Your task to perform on an android device: toggle priority inbox in the gmail app Image 0: 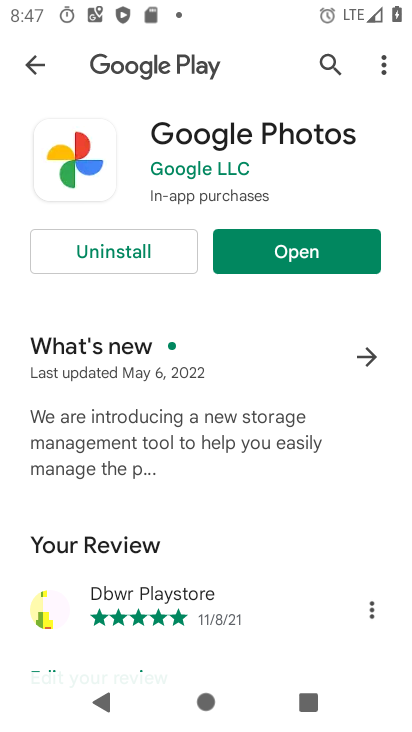
Step 0: press home button
Your task to perform on an android device: toggle priority inbox in the gmail app Image 1: 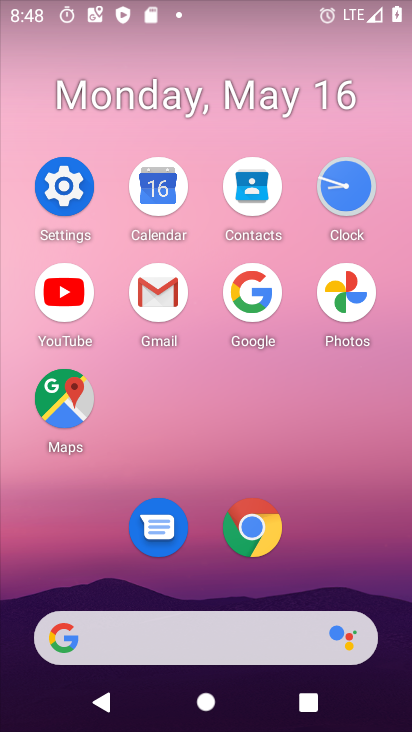
Step 1: click (161, 306)
Your task to perform on an android device: toggle priority inbox in the gmail app Image 2: 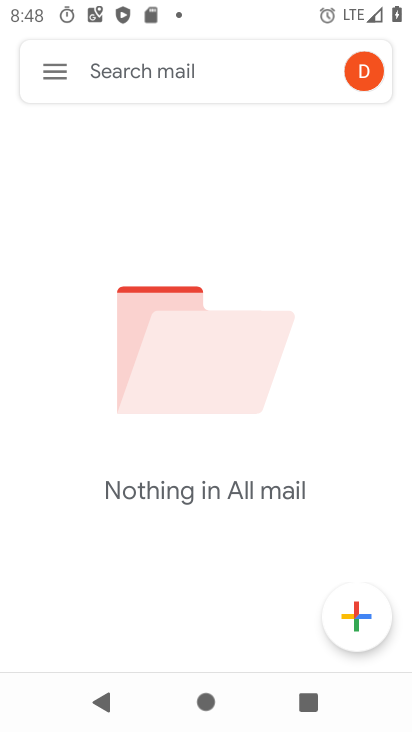
Step 2: click (48, 88)
Your task to perform on an android device: toggle priority inbox in the gmail app Image 3: 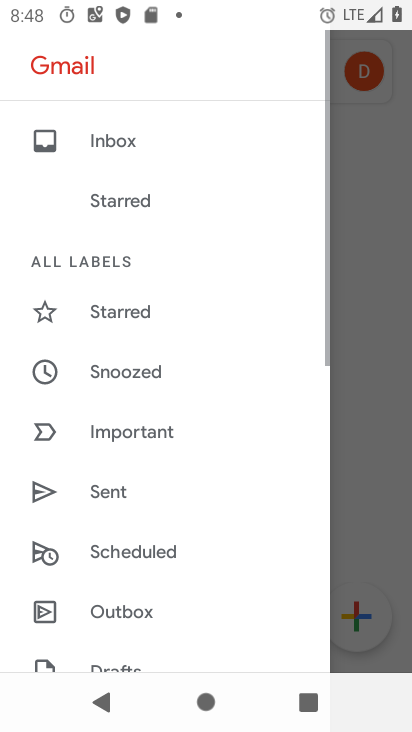
Step 3: drag from (87, 488) to (128, 149)
Your task to perform on an android device: toggle priority inbox in the gmail app Image 4: 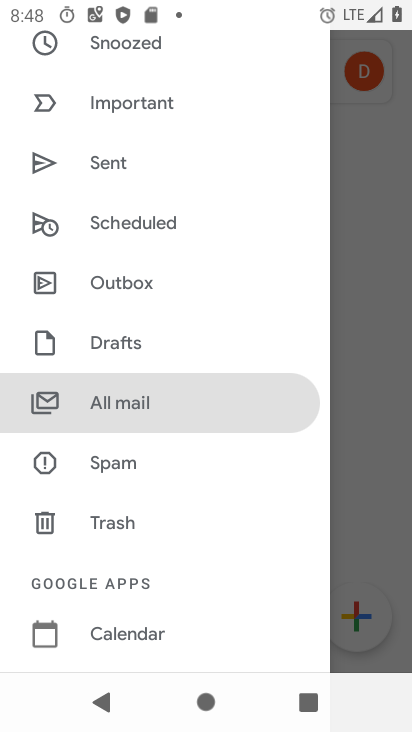
Step 4: drag from (150, 547) to (149, 173)
Your task to perform on an android device: toggle priority inbox in the gmail app Image 5: 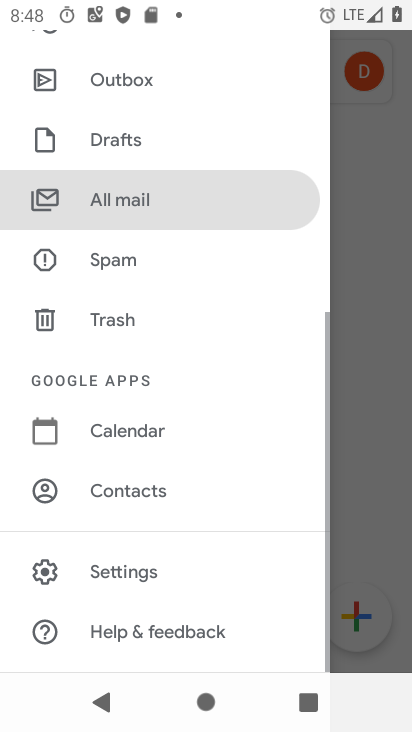
Step 5: click (114, 546)
Your task to perform on an android device: toggle priority inbox in the gmail app Image 6: 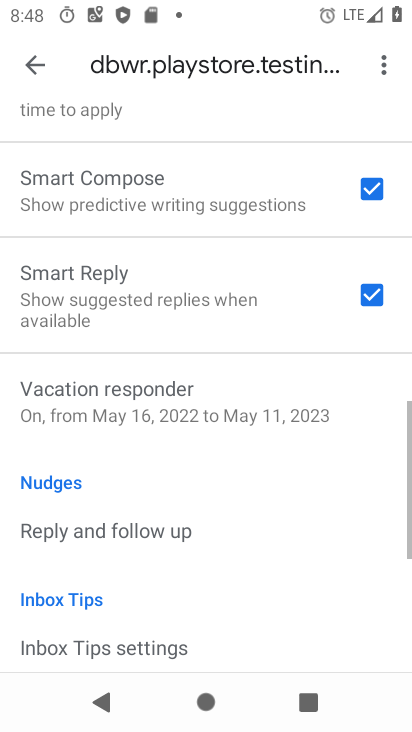
Step 6: drag from (114, 546) to (153, 173)
Your task to perform on an android device: toggle priority inbox in the gmail app Image 7: 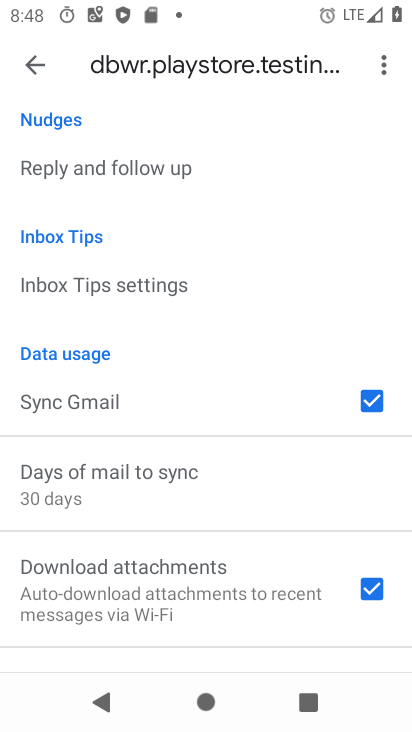
Step 7: drag from (210, 170) to (216, 517)
Your task to perform on an android device: toggle priority inbox in the gmail app Image 8: 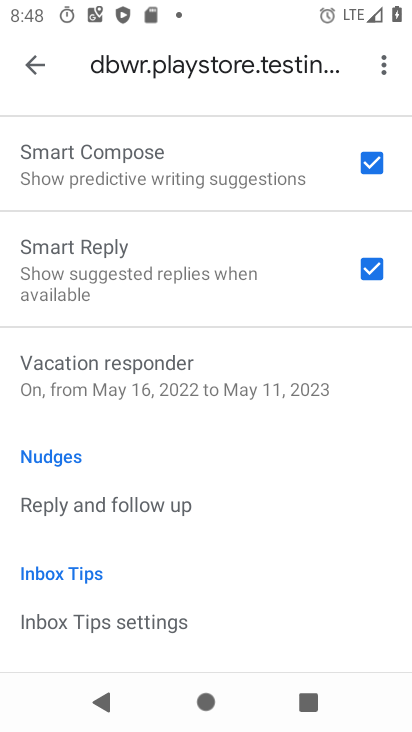
Step 8: drag from (269, 248) to (268, 500)
Your task to perform on an android device: toggle priority inbox in the gmail app Image 9: 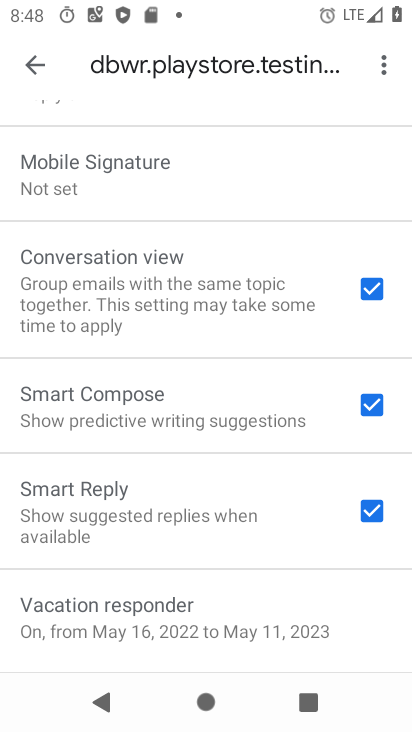
Step 9: drag from (250, 494) to (272, 248)
Your task to perform on an android device: toggle priority inbox in the gmail app Image 10: 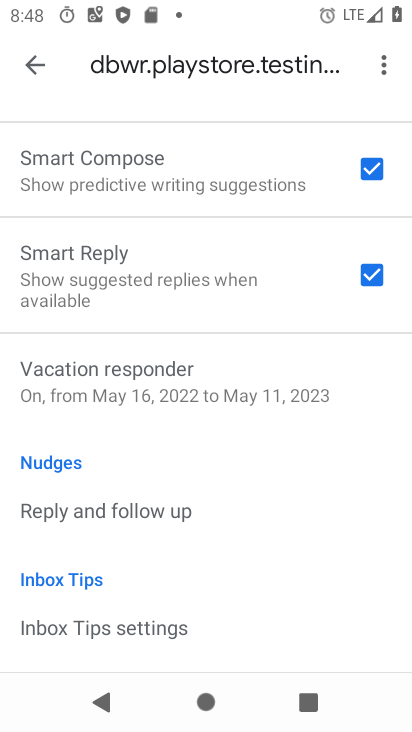
Step 10: drag from (265, 536) to (240, 127)
Your task to perform on an android device: toggle priority inbox in the gmail app Image 11: 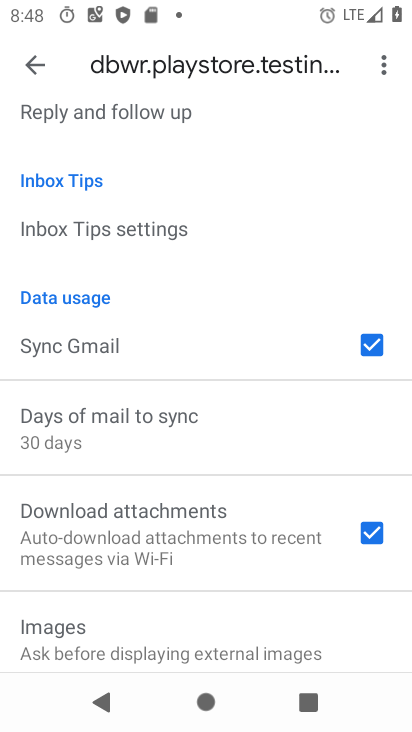
Step 11: drag from (227, 499) to (238, 157)
Your task to perform on an android device: toggle priority inbox in the gmail app Image 12: 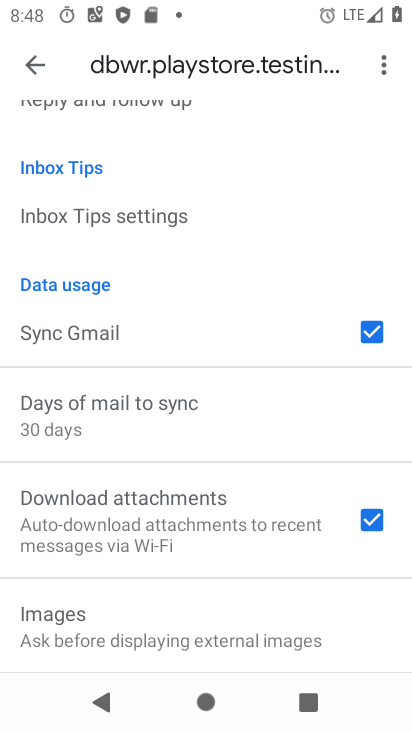
Step 12: drag from (244, 279) to (255, 584)
Your task to perform on an android device: toggle priority inbox in the gmail app Image 13: 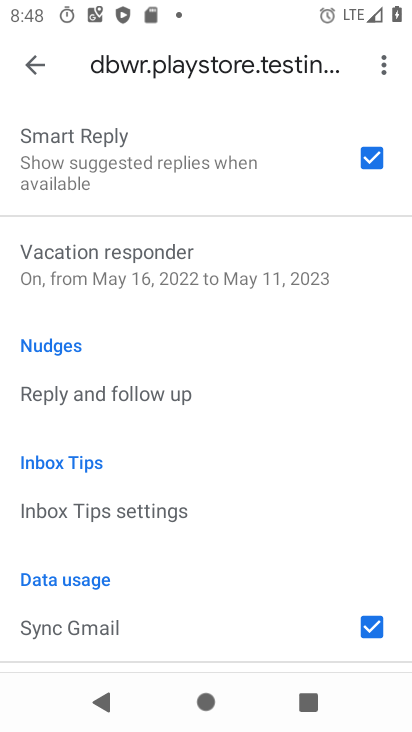
Step 13: drag from (249, 260) to (247, 551)
Your task to perform on an android device: toggle priority inbox in the gmail app Image 14: 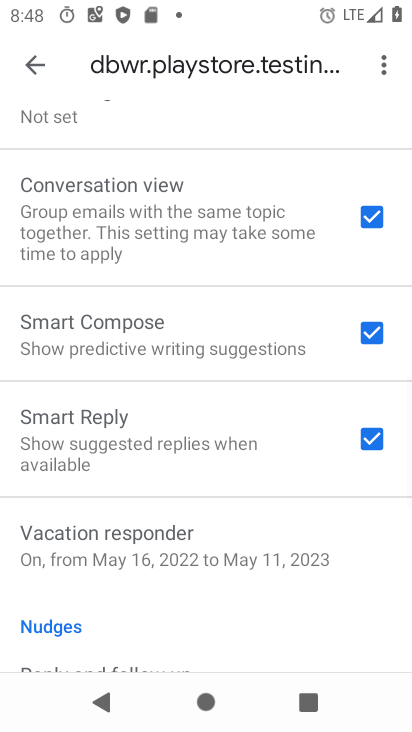
Step 14: drag from (220, 189) to (218, 559)
Your task to perform on an android device: toggle priority inbox in the gmail app Image 15: 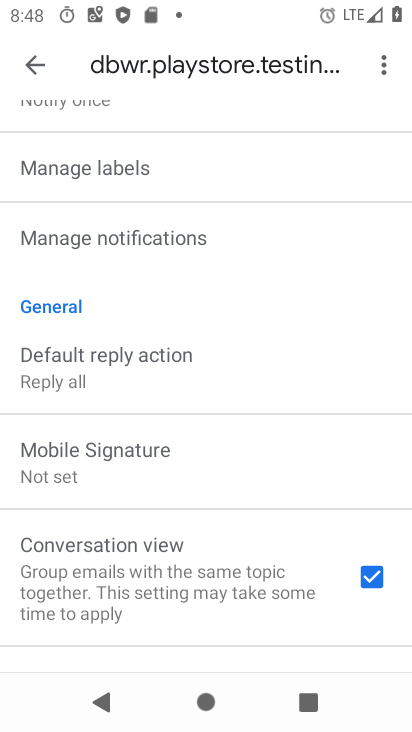
Step 15: drag from (265, 212) to (230, 523)
Your task to perform on an android device: toggle priority inbox in the gmail app Image 16: 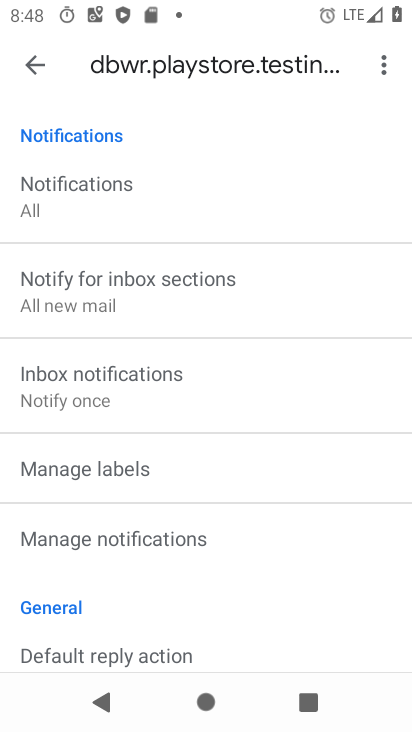
Step 16: drag from (214, 164) to (218, 501)
Your task to perform on an android device: toggle priority inbox in the gmail app Image 17: 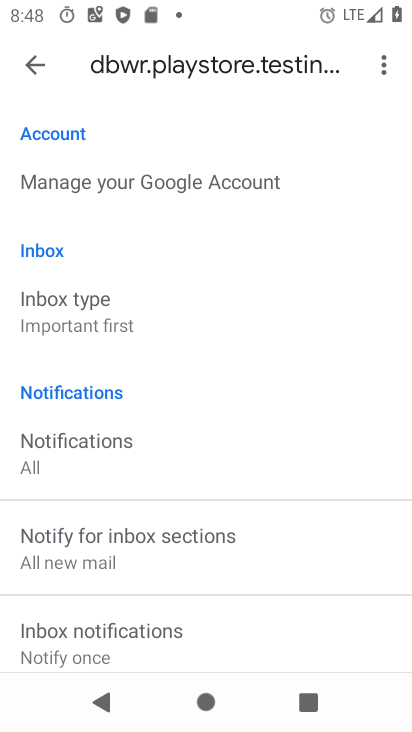
Step 17: click (122, 313)
Your task to perform on an android device: toggle priority inbox in the gmail app Image 18: 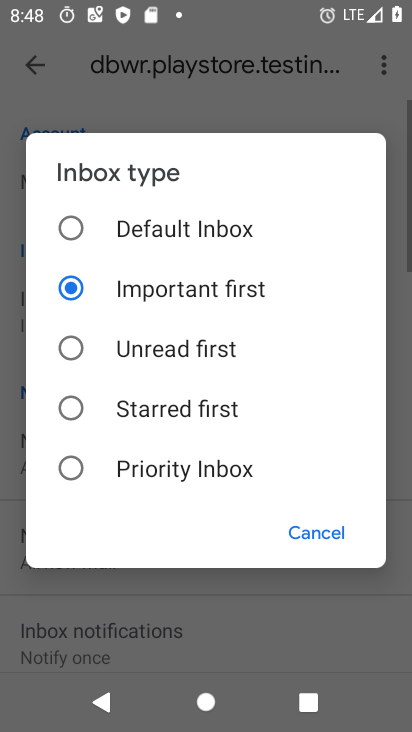
Step 18: click (165, 479)
Your task to perform on an android device: toggle priority inbox in the gmail app Image 19: 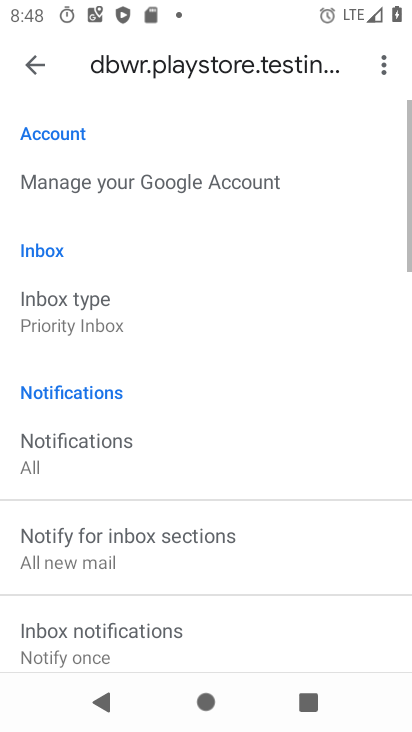
Step 19: task complete